Your task to perform on an android device: set the timer Image 0: 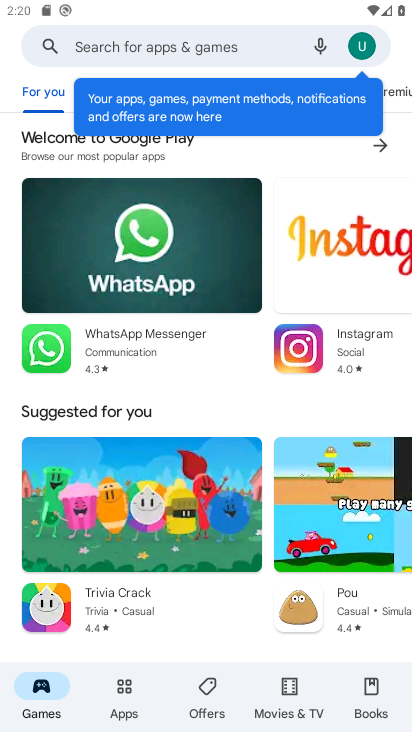
Step 0: press back button
Your task to perform on an android device: set the timer Image 1: 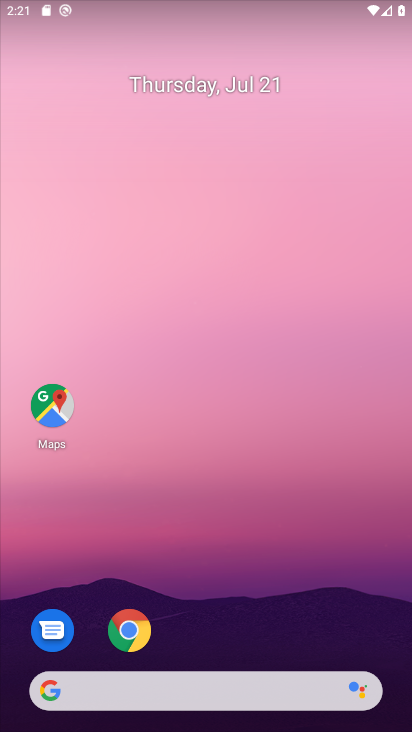
Step 1: drag from (206, 563) to (193, 190)
Your task to perform on an android device: set the timer Image 2: 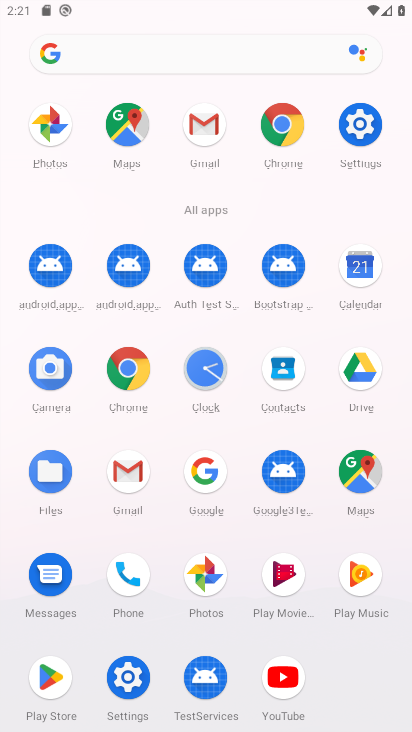
Step 2: click (204, 377)
Your task to perform on an android device: set the timer Image 3: 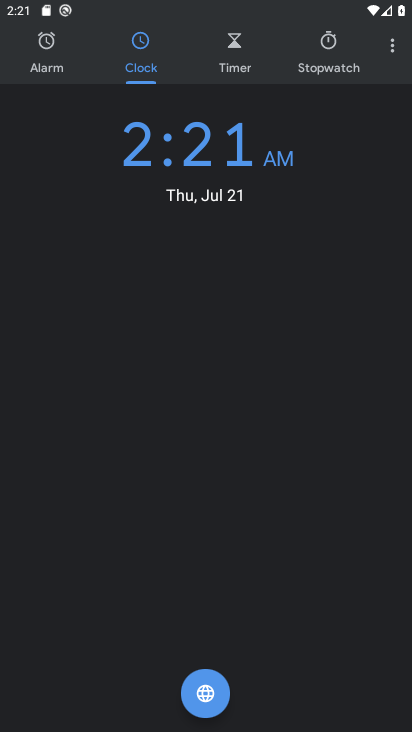
Step 3: click (235, 62)
Your task to perform on an android device: set the timer Image 4: 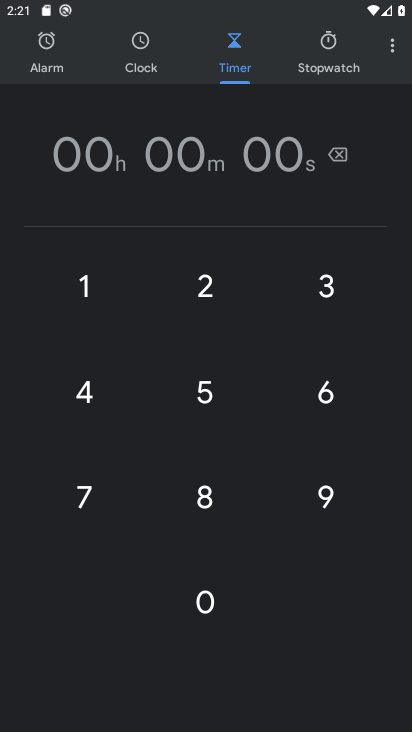
Step 4: click (94, 291)
Your task to perform on an android device: set the timer Image 5: 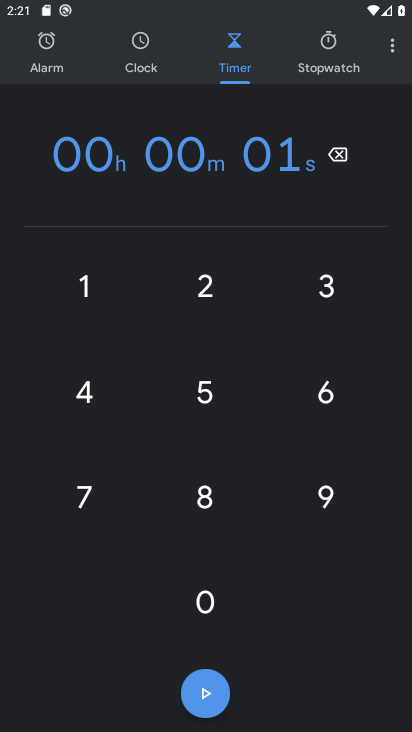
Step 5: click (201, 612)
Your task to perform on an android device: set the timer Image 6: 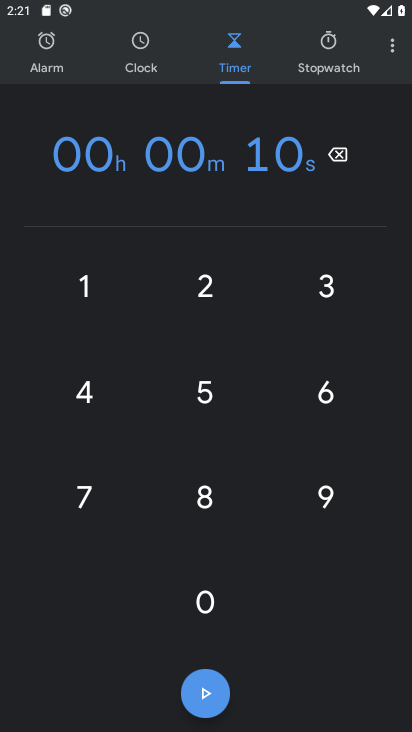
Step 6: click (201, 612)
Your task to perform on an android device: set the timer Image 7: 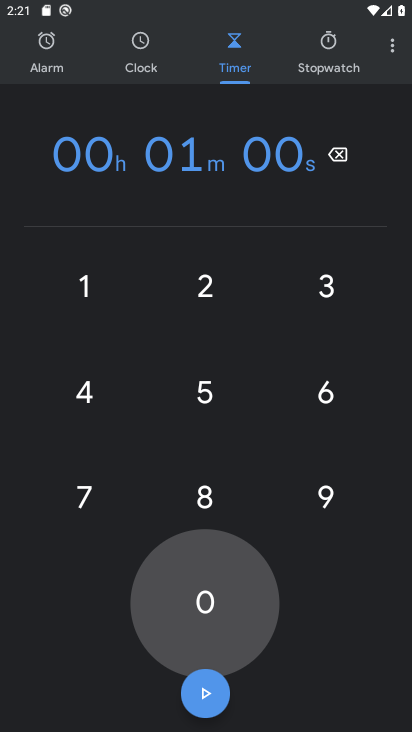
Step 7: click (201, 612)
Your task to perform on an android device: set the timer Image 8: 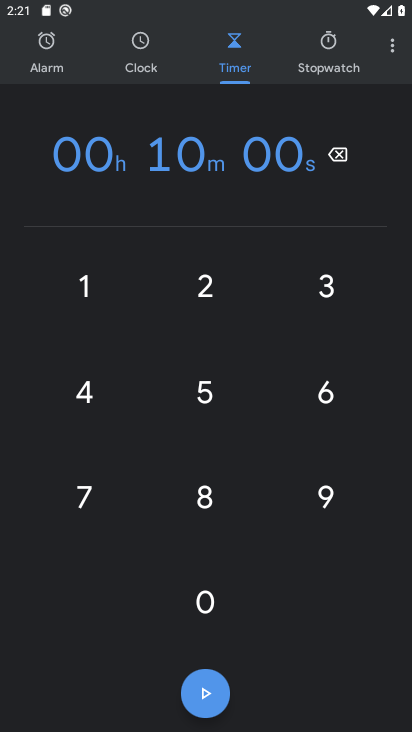
Step 8: click (205, 695)
Your task to perform on an android device: set the timer Image 9: 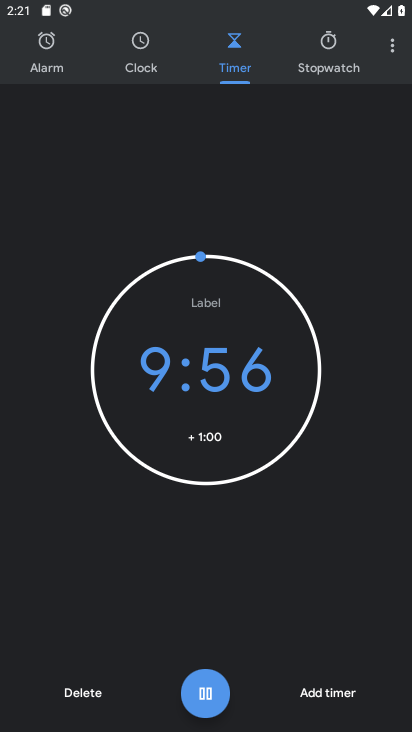
Step 9: click (331, 693)
Your task to perform on an android device: set the timer Image 10: 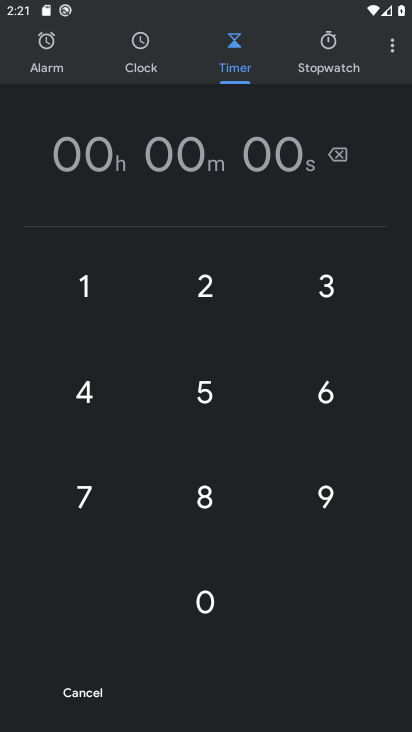
Step 10: task complete